Your task to perform on an android device: toggle priority inbox in the gmail app Image 0: 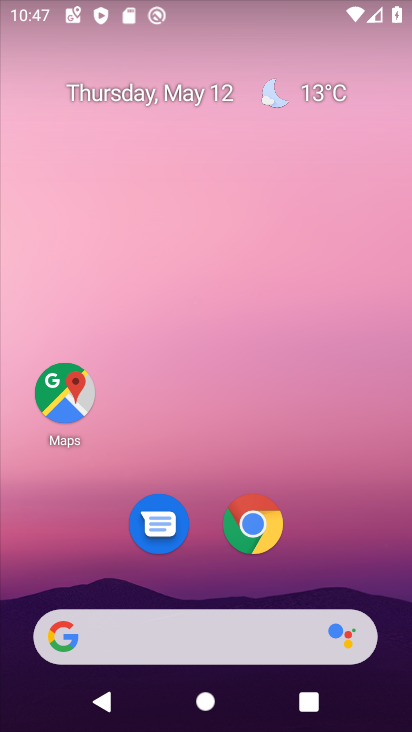
Step 0: drag from (325, 510) to (333, 41)
Your task to perform on an android device: toggle priority inbox in the gmail app Image 1: 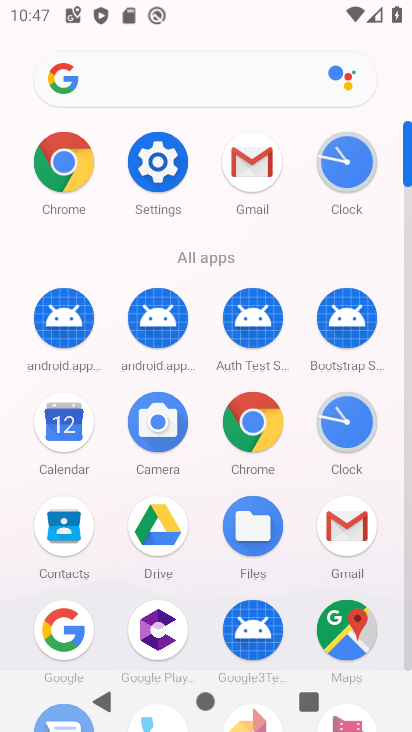
Step 1: click (238, 163)
Your task to perform on an android device: toggle priority inbox in the gmail app Image 2: 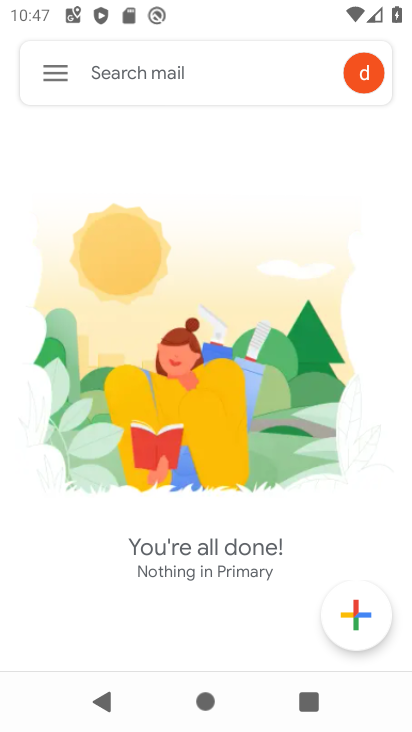
Step 2: click (41, 66)
Your task to perform on an android device: toggle priority inbox in the gmail app Image 3: 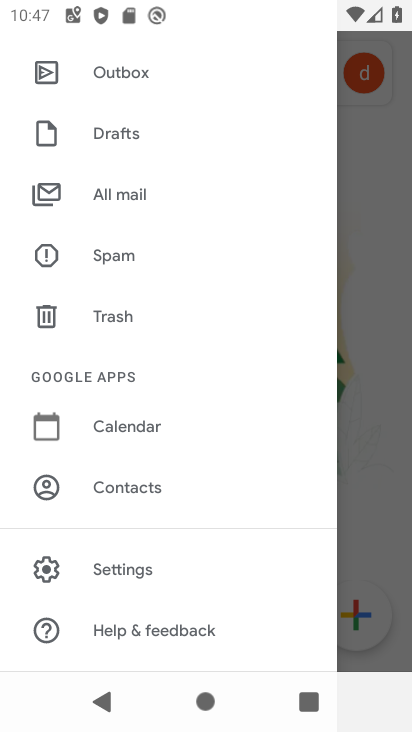
Step 3: click (144, 565)
Your task to perform on an android device: toggle priority inbox in the gmail app Image 4: 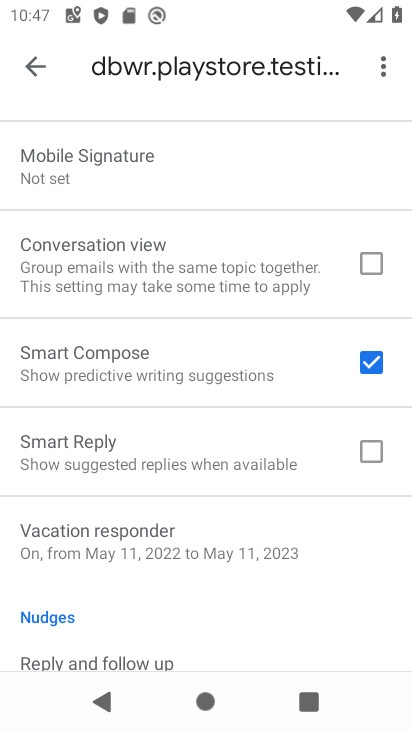
Step 4: drag from (202, 185) to (132, 690)
Your task to perform on an android device: toggle priority inbox in the gmail app Image 5: 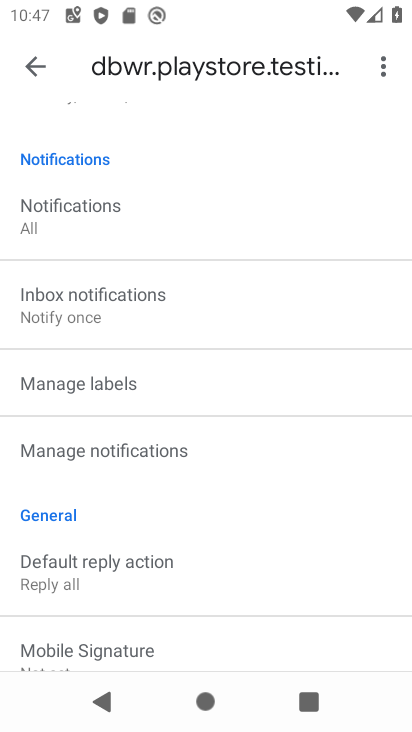
Step 5: click (131, 306)
Your task to perform on an android device: toggle priority inbox in the gmail app Image 6: 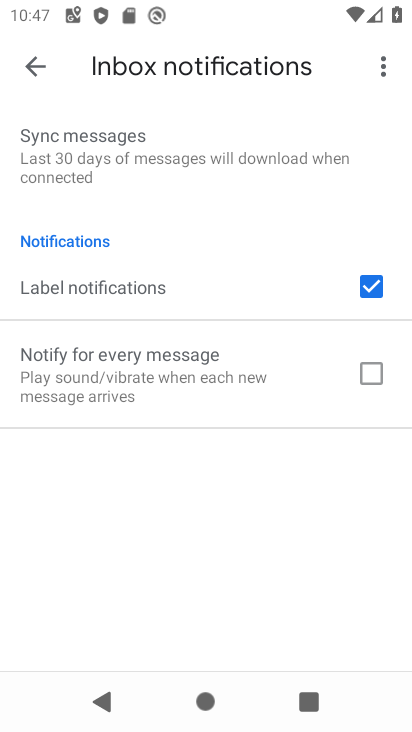
Step 6: click (35, 61)
Your task to perform on an android device: toggle priority inbox in the gmail app Image 7: 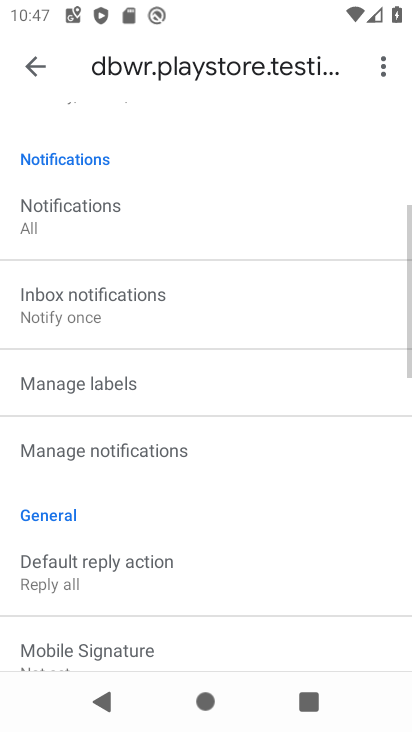
Step 7: drag from (173, 198) to (139, 645)
Your task to perform on an android device: toggle priority inbox in the gmail app Image 8: 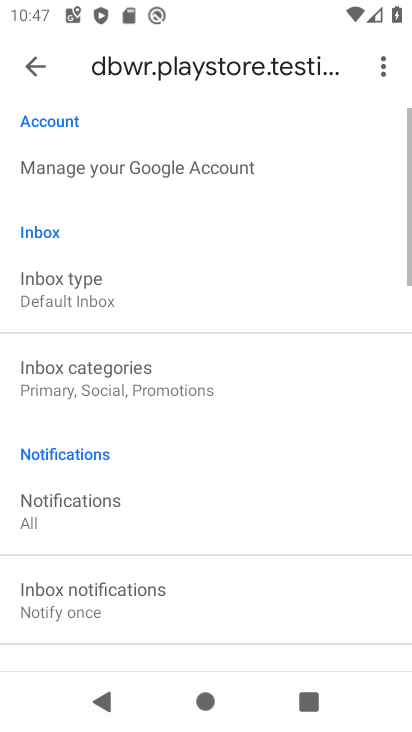
Step 8: click (98, 297)
Your task to perform on an android device: toggle priority inbox in the gmail app Image 9: 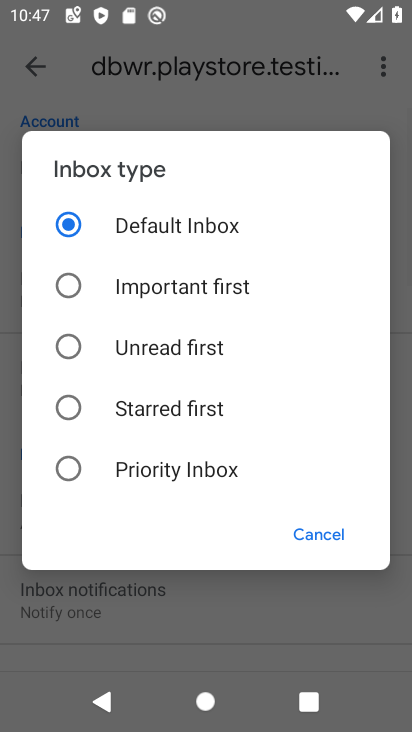
Step 9: click (74, 468)
Your task to perform on an android device: toggle priority inbox in the gmail app Image 10: 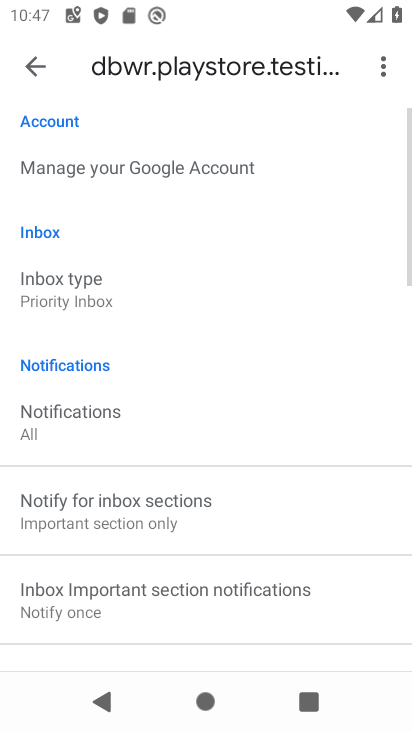
Step 10: task complete